Your task to perform on an android device: Search for pizza restaurants on Maps Image 0: 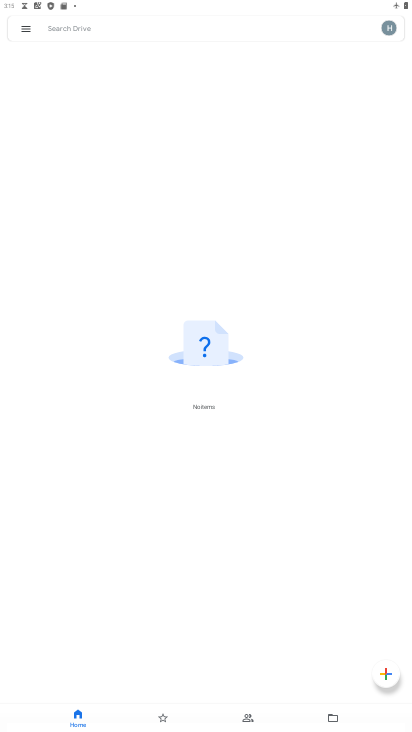
Step 0: press home button
Your task to perform on an android device: Search for pizza restaurants on Maps Image 1: 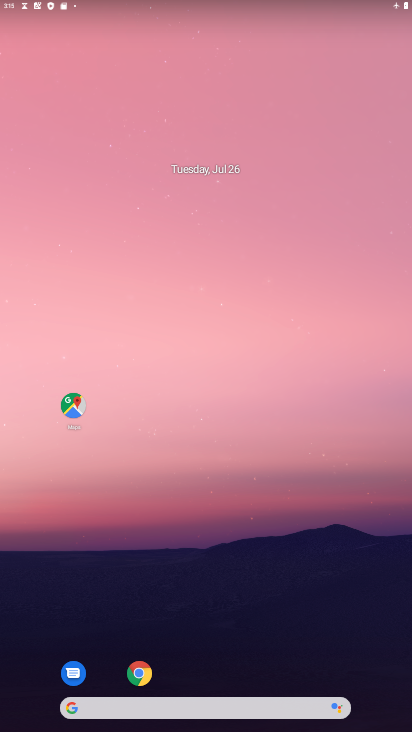
Step 1: click (72, 406)
Your task to perform on an android device: Search for pizza restaurants on Maps Image 2: 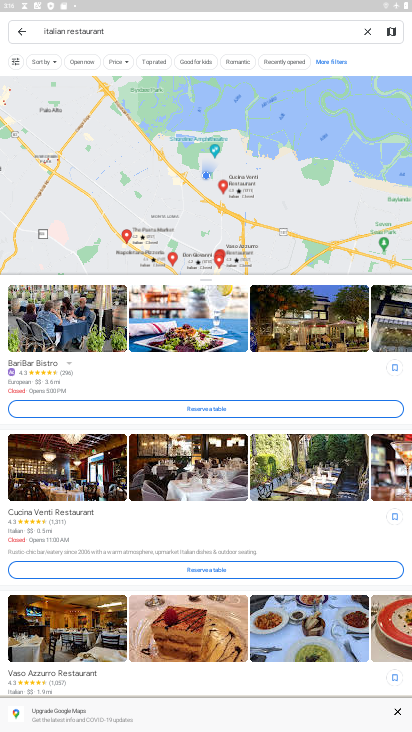
Step 2: click (245, 36)
Your task to perform on an android device: Search for pizza restaurants on Maps Image 3: 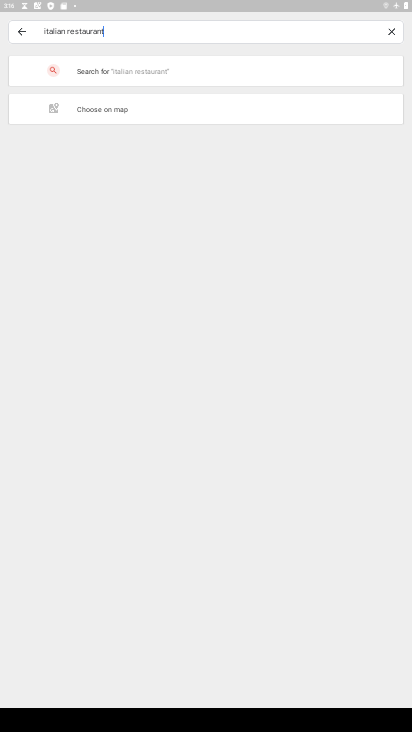
Step 3: click (389, 27)
Your task to perform on an android device: Search for pizza restaurants on Maps Image 4: 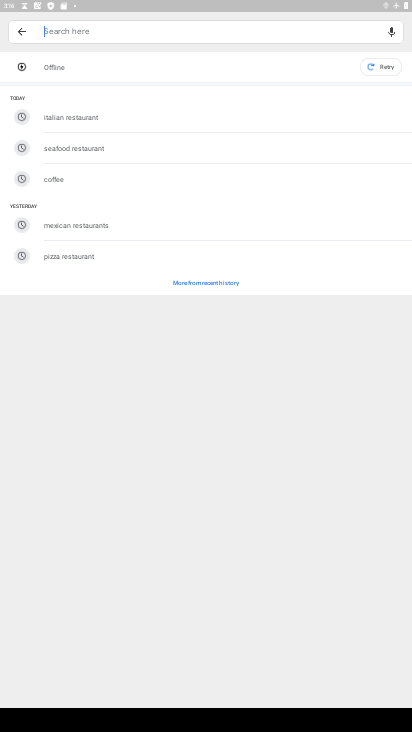
Step 4: type "pizza restaurants"
Your task to perform on an android device: Search for pizza restaurants on Maps Image 5: 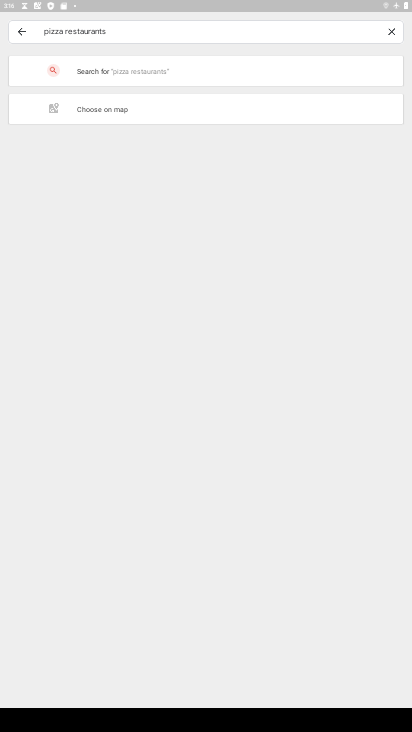
Step 5: task complete